Your task to perform on an android device: Is it going to rain tomorrow? Image 0: 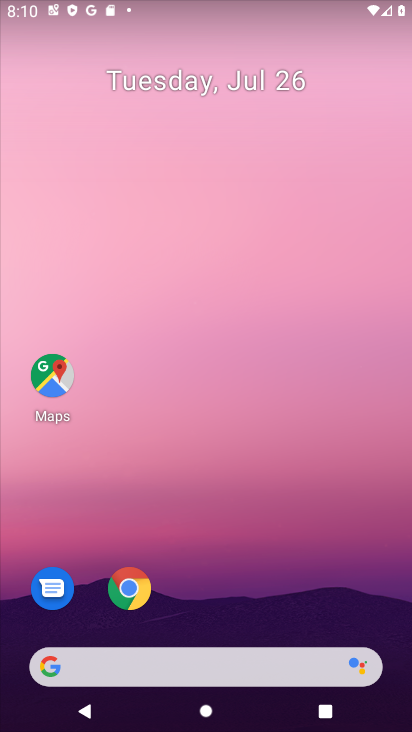
Step 0: press home button
Your task to perform on an android device: Is it going to rain tomorrow? Image 1: 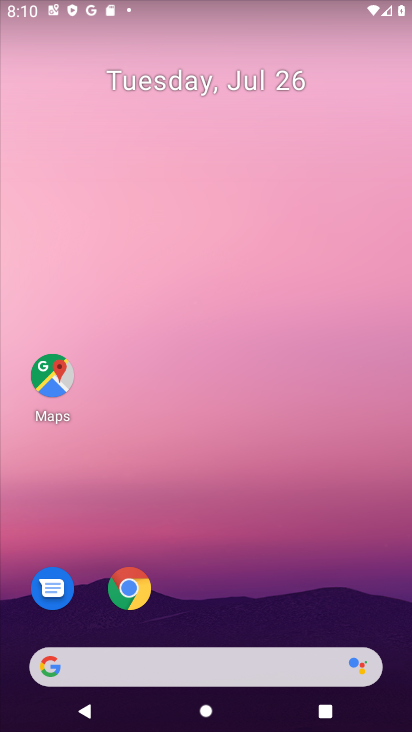
Step 1: click (53, 669)
Your task to perform on an android device: Is it going to rain tomorrow? Image 2: 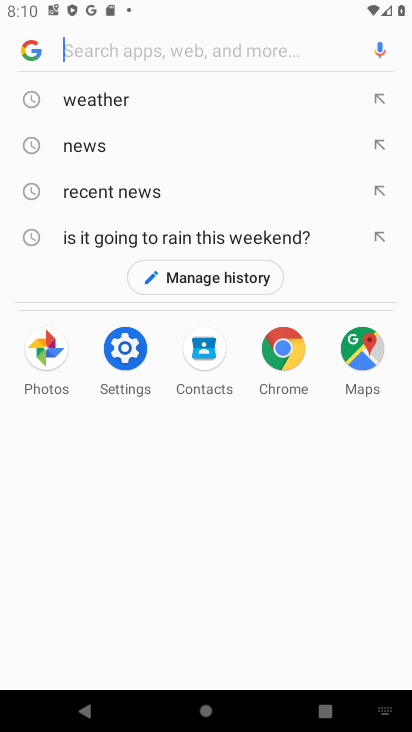
Step 2: type "Is it going to rain tomorrow?"
Your task to perform on an android device: Is it going to rain tomorrow? Image 3: 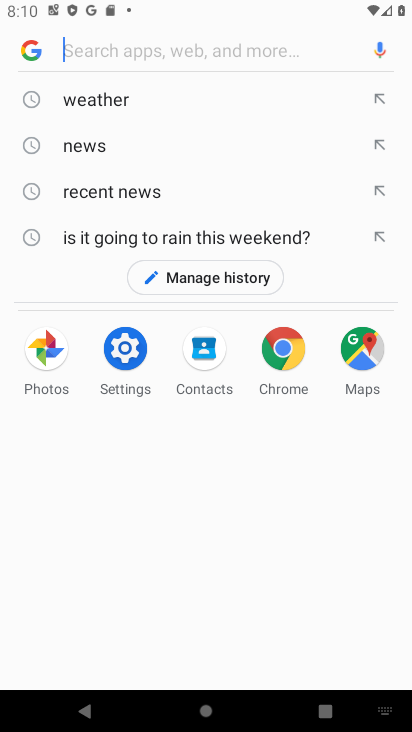
Step 3: click (106, 43)
Your task to perform on an android device: Is it going to rain tomorrow? Image 4: 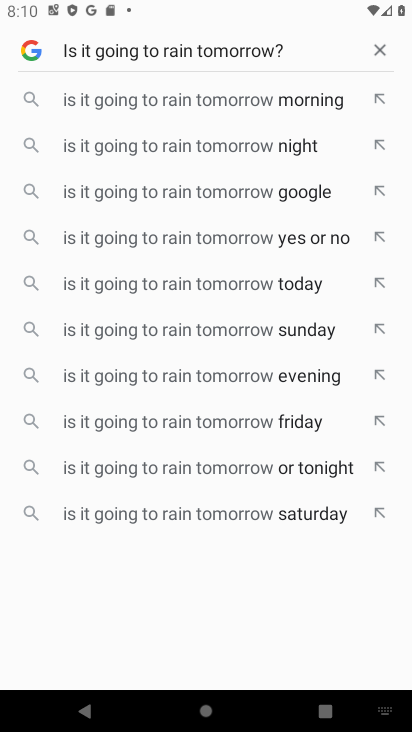
Step 4: press enter
Your task to perform on an android device: Is it going to rain tomorrow? Image 5: 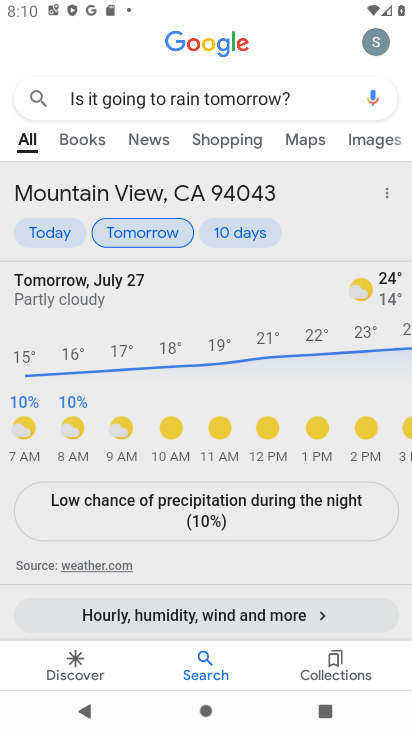
Step 5: task complete